Your task to perform on an android device: Go to Reddit.com Image 0: 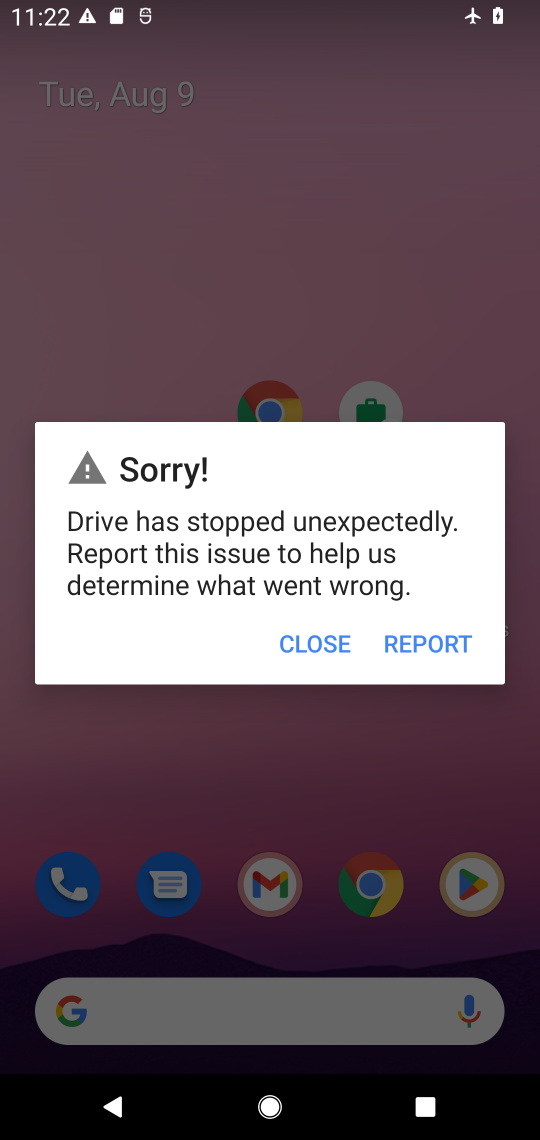
Step 0: click (296, 645)
Your task to perform on an android device: Go to Reddit.com Image 1: 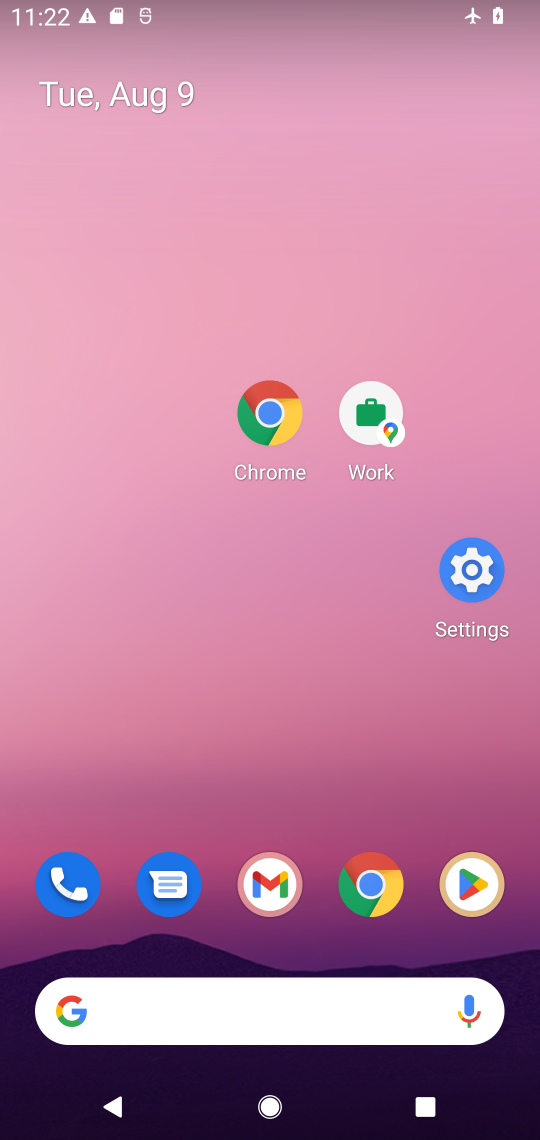
Step 1: drag from (293, 949) to (201, 506)
Your task to perform on an android device: Go to Reddit.com Image 2: 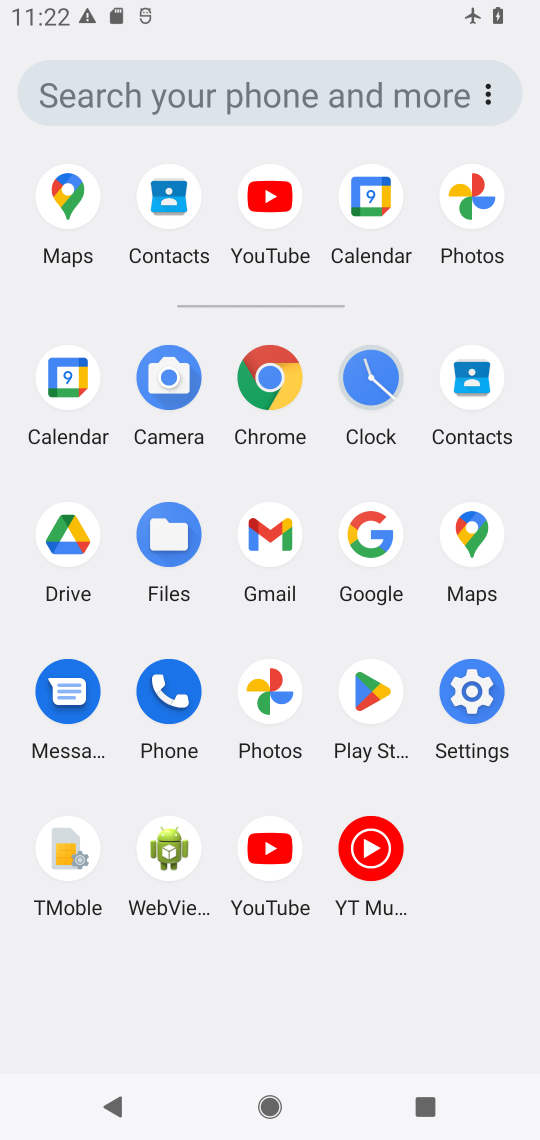
Step 2: click (262, 386)
Your task to perform on an android device: Go to Reddit.com Image 3: 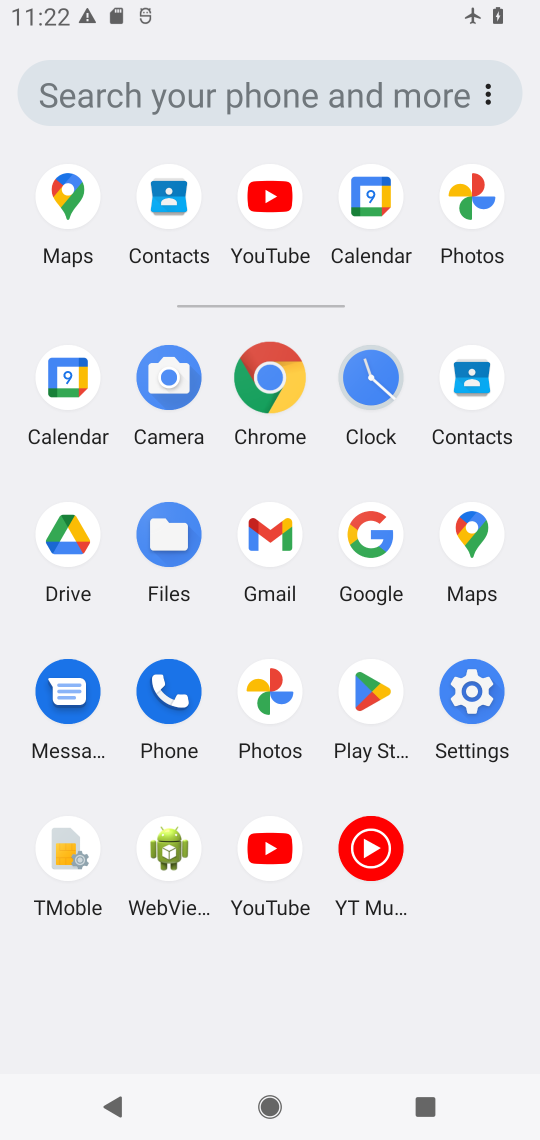
Step 3: click (262, 386)
Your task to perform on an android device: Go to Reddit.com Image 4: 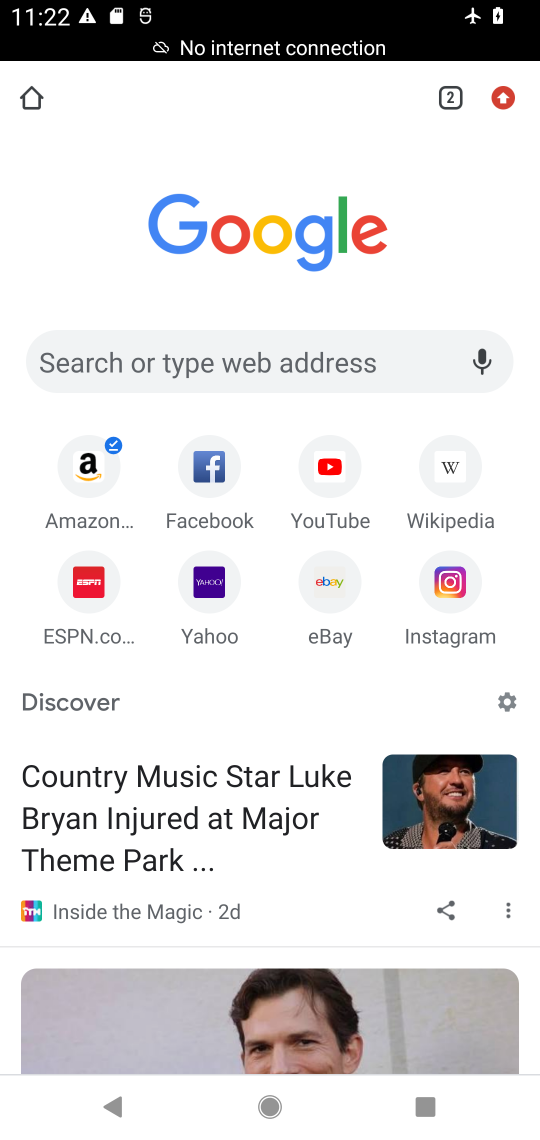
Step 4: click (133, 374)
Your task to perform on an android device: Go to Reddit.com Image 5: 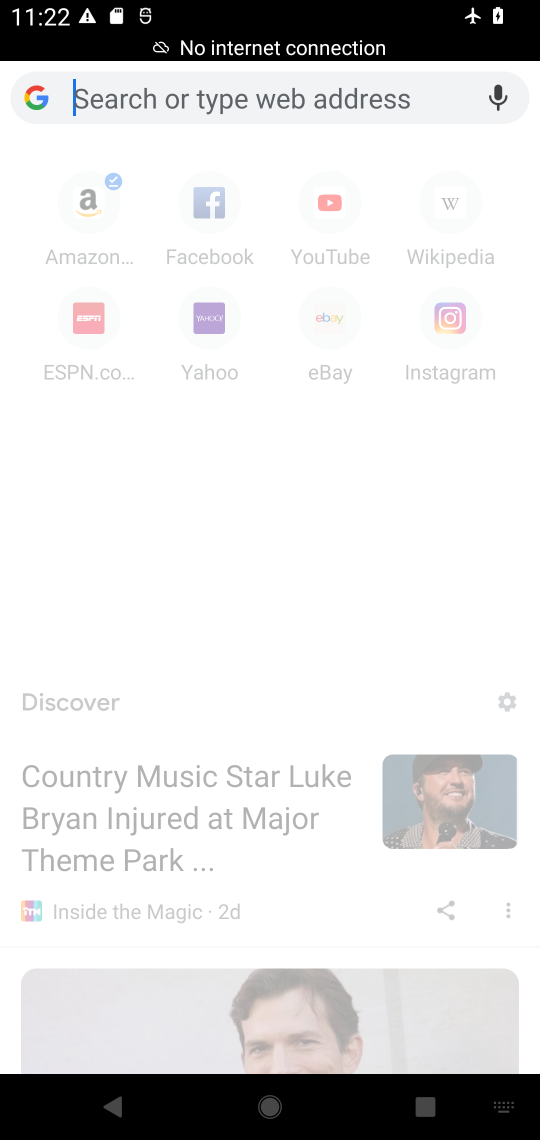
Step 5: type "reddit.com"
Your task to perform on an android device: Go to Reddit.com Image 6: 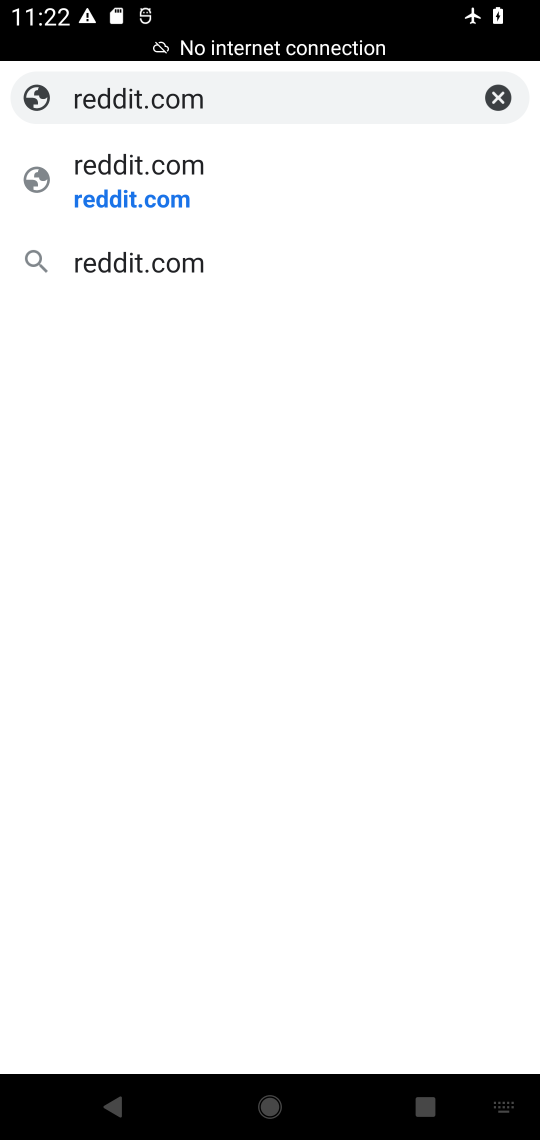
Step 6: click (119, 188)
Your task to perform on an android device: Go to Reddit.com Image 7: 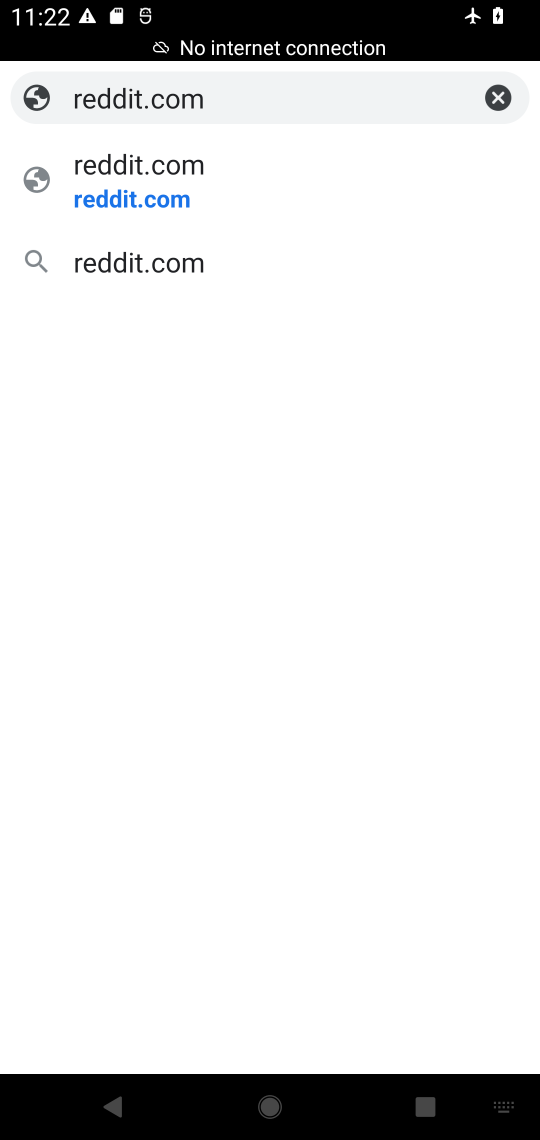
Step 7: click (119, 186)
Your task to perform on an android device: Go to Reddit.com Image 8: 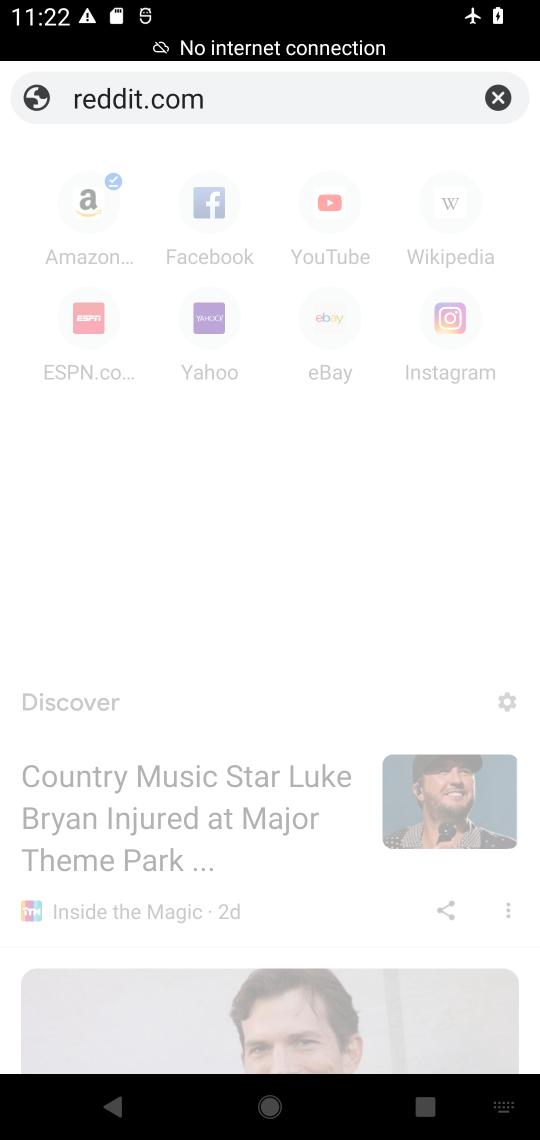
Step 8: click (120, 190)
Your task to perform on an android device: Go to Reddit.com Image 9: 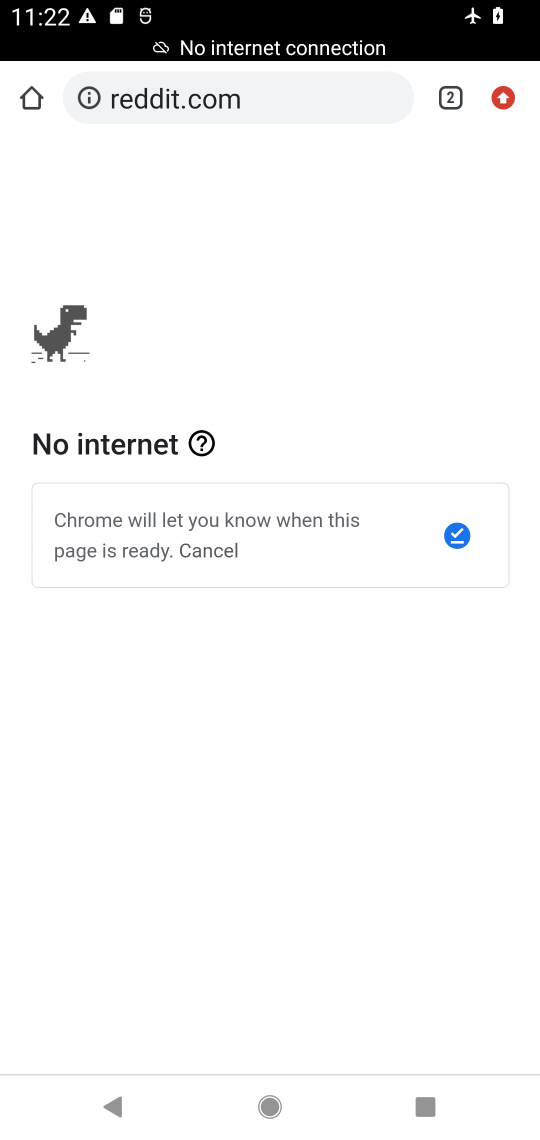
Step 9: task complete